Your task to perform on an android device: toggle show notifications on the lock screen Image 0: 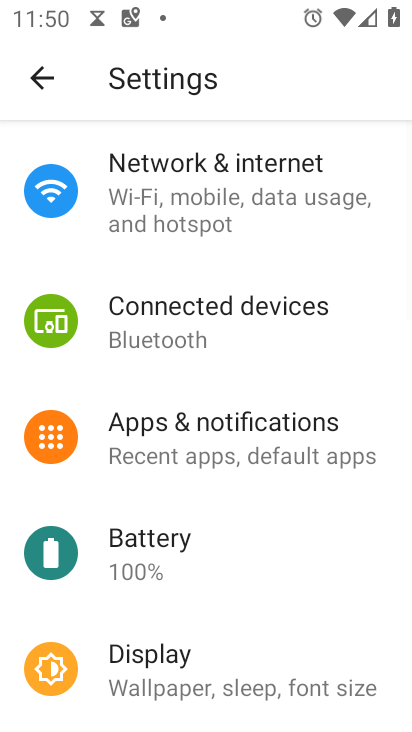
Step 0: click (254, 448)
Your task to perform on an android device: toggle show notifications on the lock screen Image 1: 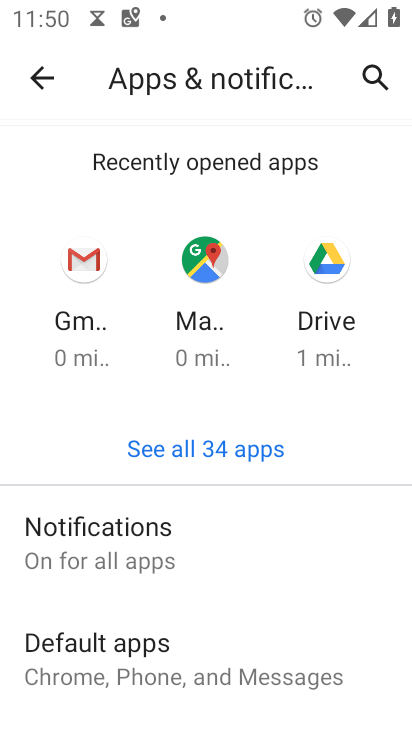
Step 1: click (110, 538)
Your task to perform on an android device: toggle show notifications on the lock screen Image 2: 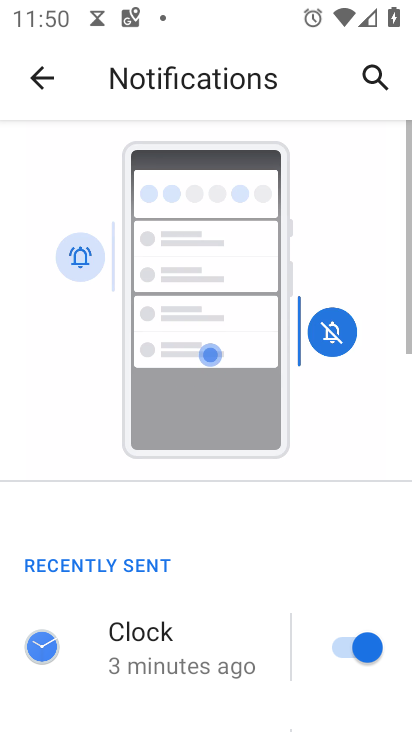
Step 2: drag from (177, 534) to (208, 118)
Your task to perform on an android device: toggle show notifications on the lock screen Image 3: 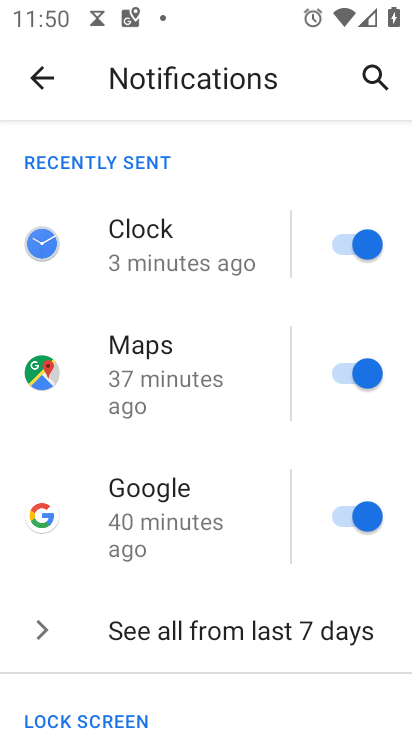
Step 3: drag from (221, 624) to (303, 125)
Your task to perform on an android device: toggle show notifications on the lock screen Image 4: 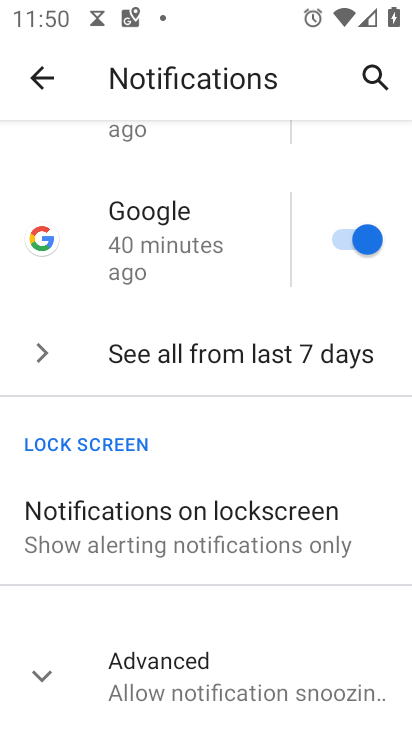
Step 4: click (188, 525)
Your task to perform on an android device: toggle show notifications on the lock screen Image 5: 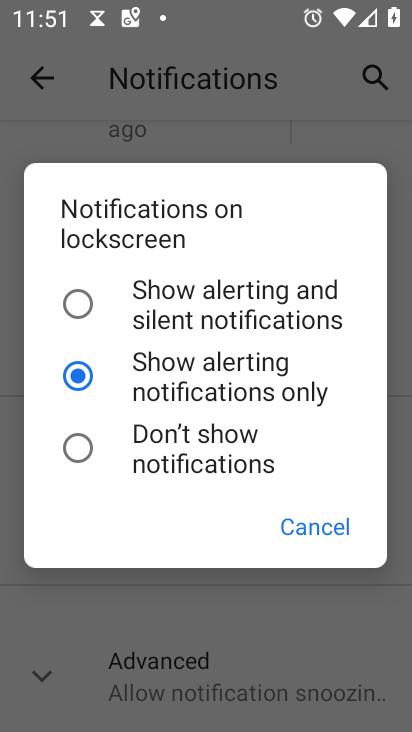
Step 5: click (75, 451)
Your task to perform on an android device: toggle show notifications on the lock screen Image 6: 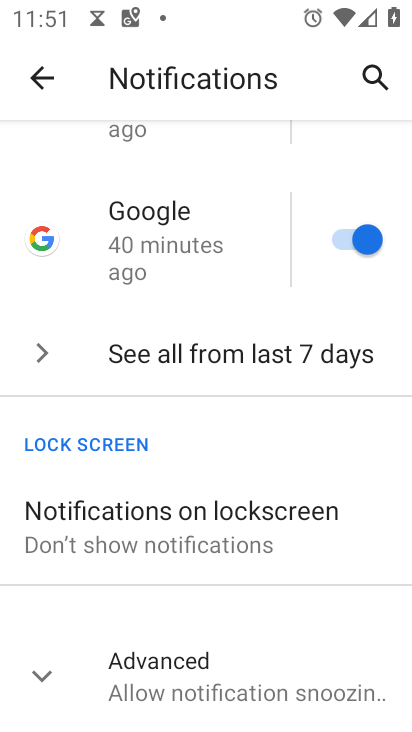
Step 6: task complete